Your task to perform on an android device: move a message to another label in the gmail app Image 0: 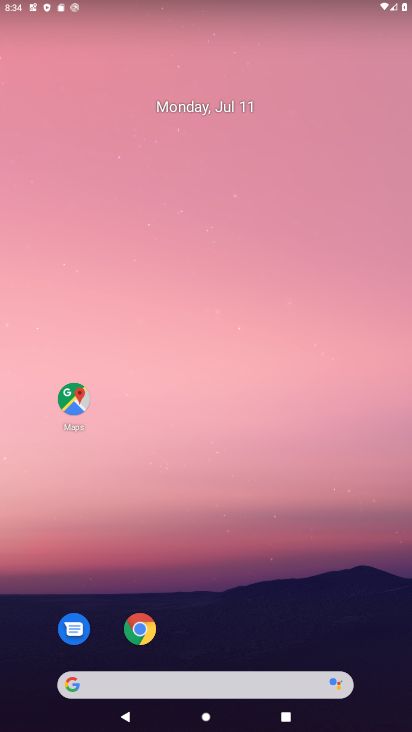
Step 0: drag from (214, 631) to (212, 70)
Your task to perform on an android device: move a message to another label in the gmail app Image 1: 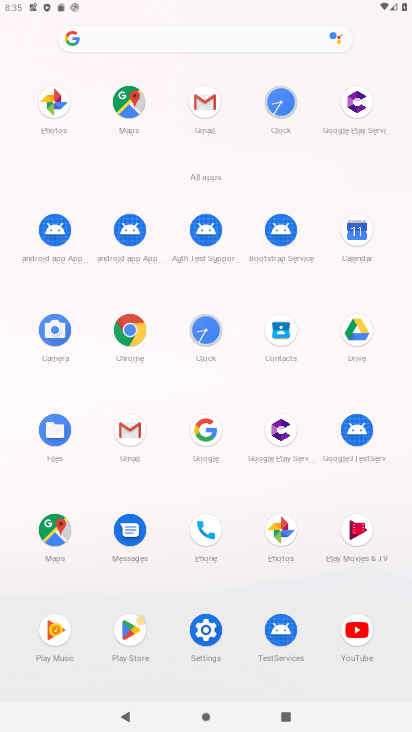
Step 1: click (203, 105)
Your task to perform on an android device: move a message to another label in the gmail app Image 2: 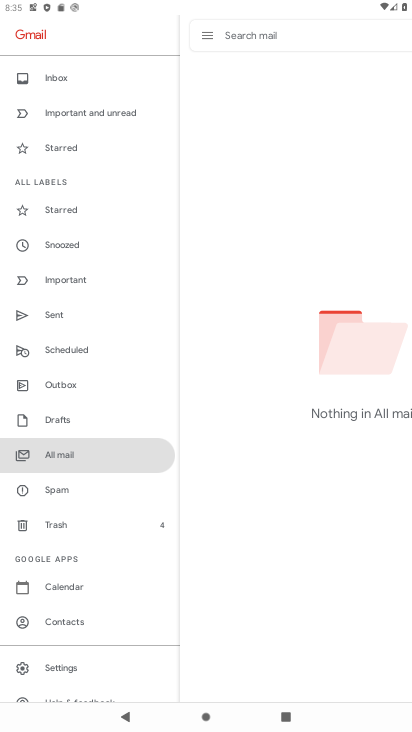
Step 2: task complete